Your task to perform on an android device: toggle location history Image 0: 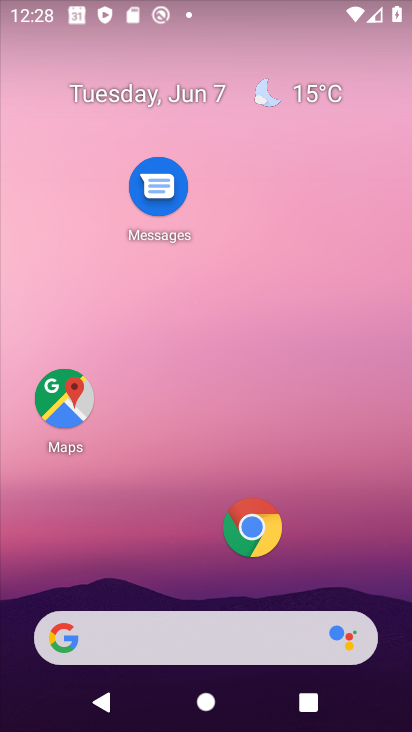
Step 0: drag from (204, 616) to (198, 210)
Your task to perform on an android device: toggle location history Image 1: 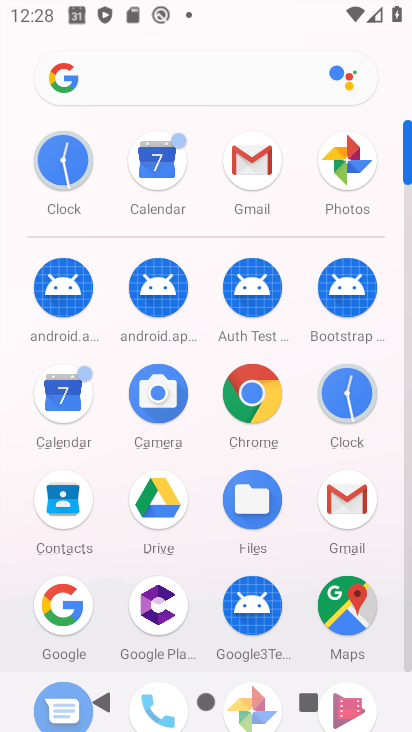
Step 1: drag from (100, 645) to (125, 290)
Your task to perform on an android device: toggle location history Image 2: 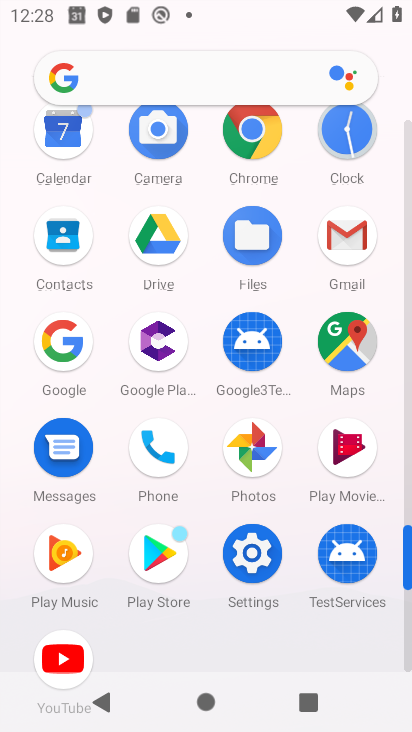
Step 2: click (240, 553)
Your task to perform on an android device: toggle location history Image 3: 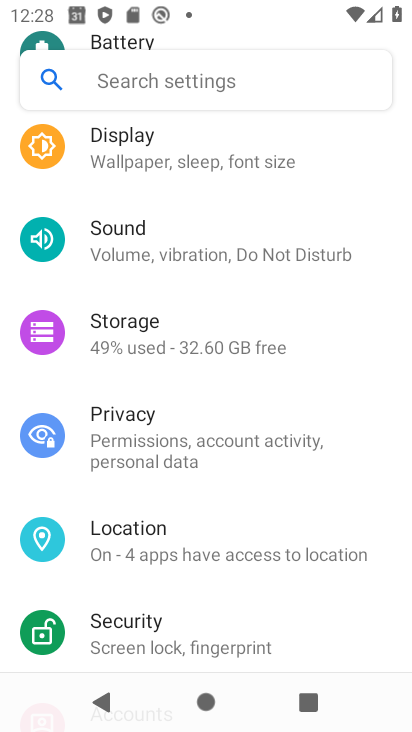
Step 3: click (213, 548)
Your task to perform on an android device: toggle location history Image 4: 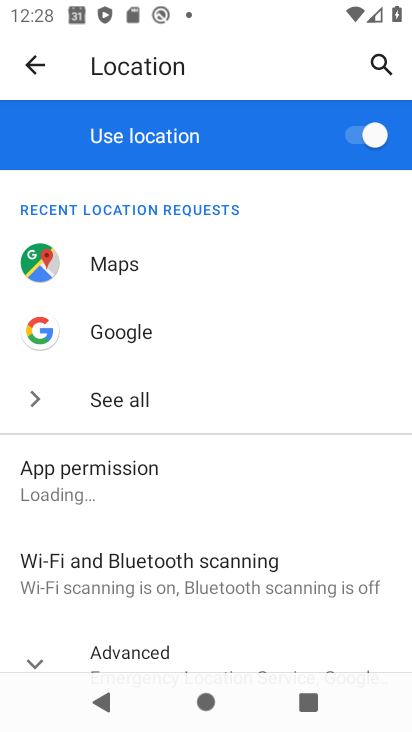
Step 4: drag from (191, 534) to (204, 209)
Your task to perform on an android device: toggle location history Image 5: 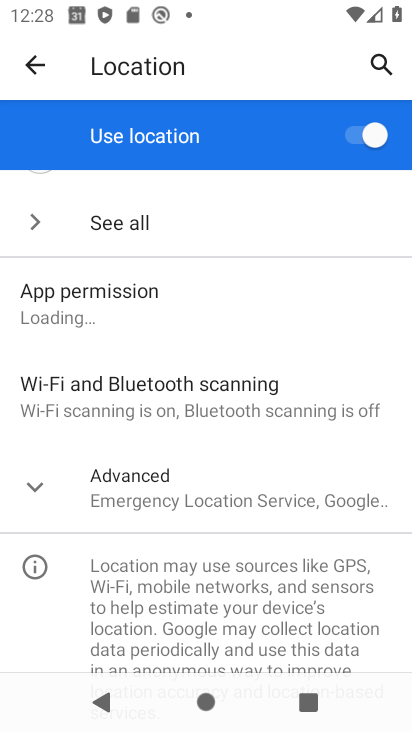
Step 5: click (199, 498)
Your task to perform on an android device: toggle location history Image 6: 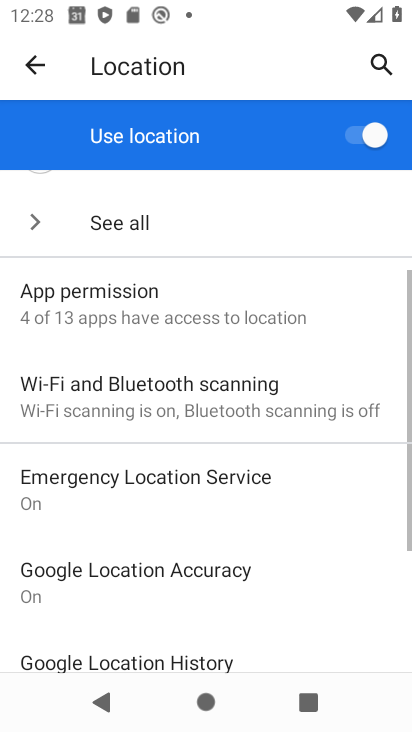
Step 6: drag from (215, 662) to (247, 304)
Your task to perform on an android device: toggle location history Image 7: 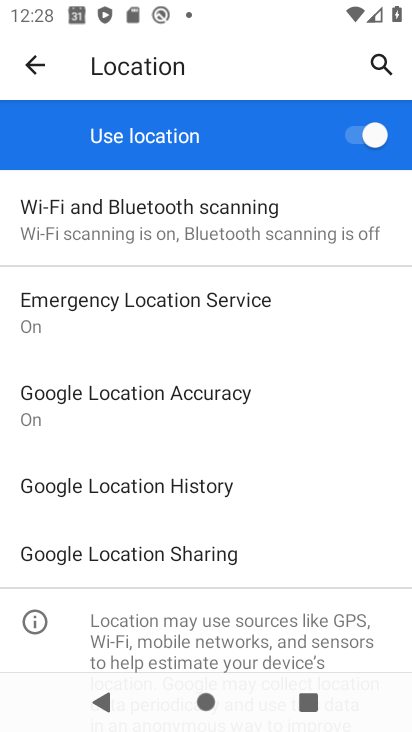
Step 7: click (165, 490)
Your task to perform on an android device: toggle location history Image 8: 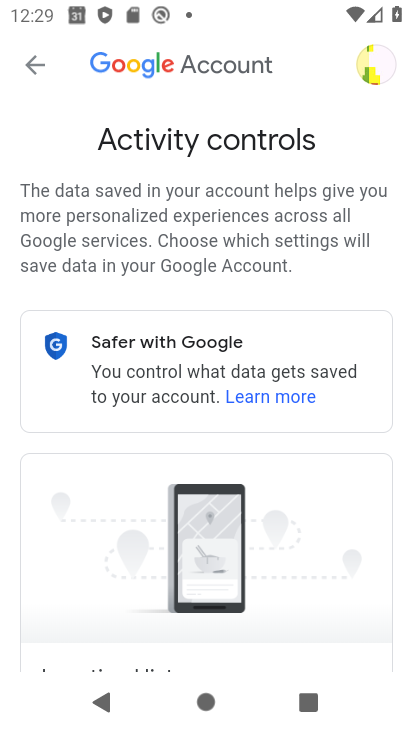
Step 8: drag from (314, 604) to (313, 253)
Your task to perform on an android device: toggle location history Image 9: 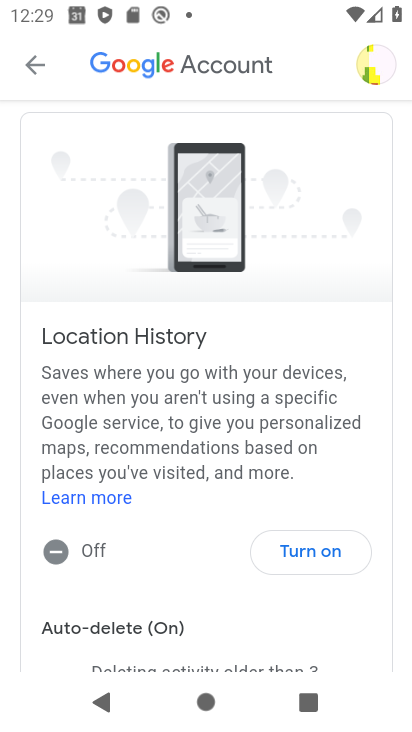
Step 9: click (321, 563)
Your task to perform on an android device: toggle location history Image 10: 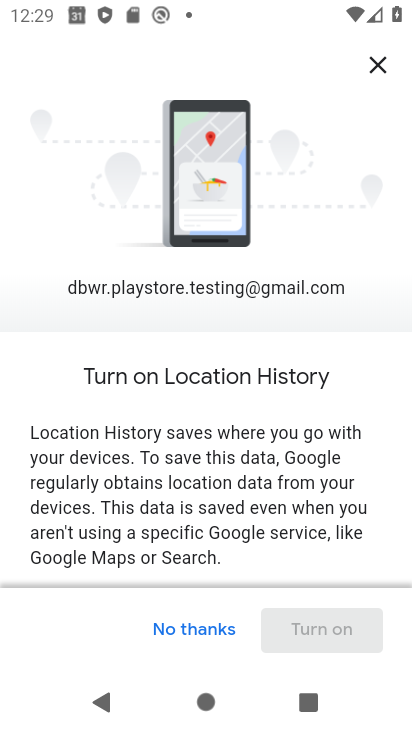
Step 10: drag from (277, 543) to (277, 144)
Your task to perform on an android device: toggle location history Image 11: 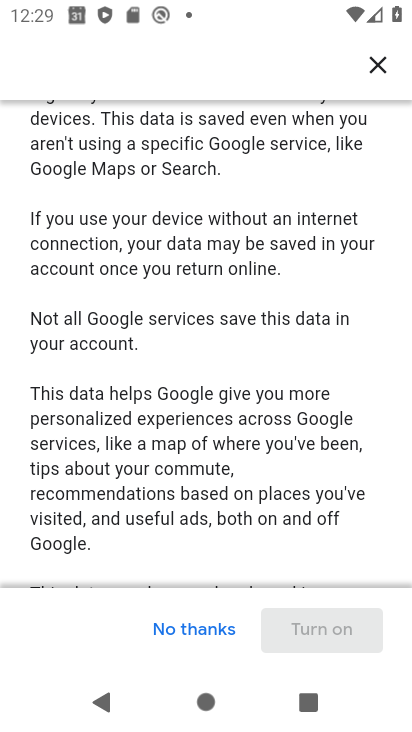
Step 11: drag from (326, 563) to (314, 205)
Your task to perform on an android device: toggle location history Image 12: 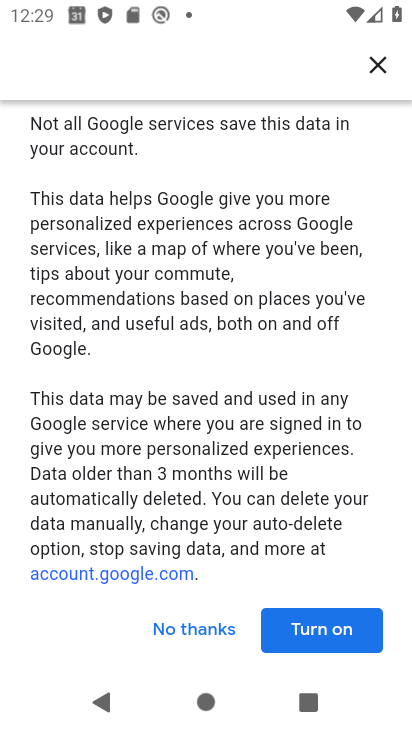
Step 12: click (331, 637)
Your task to perform on an android device: toggle location history Image 13: 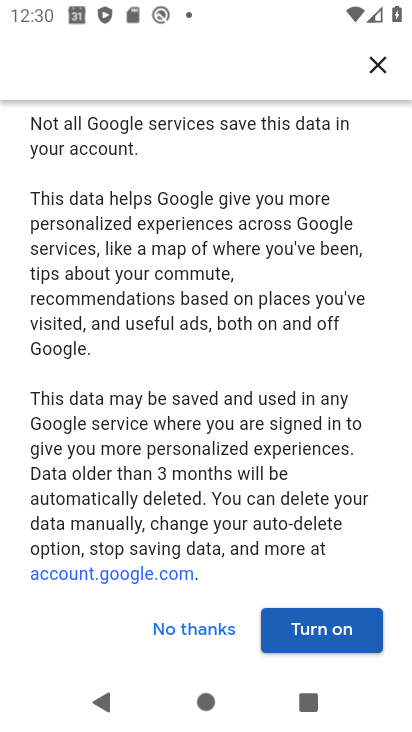
Step 13: click (342, 629)
Your task to perform on an android device: toggle location history Image 14: 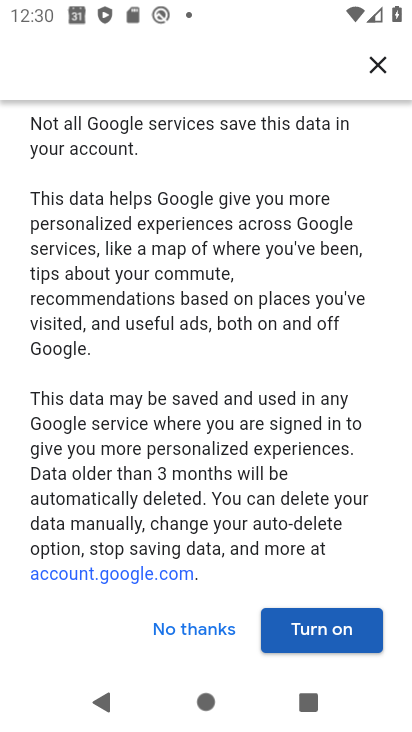
Step 14: click (342, 629)
Your task to perform on an android device: toggle location history Image 15: 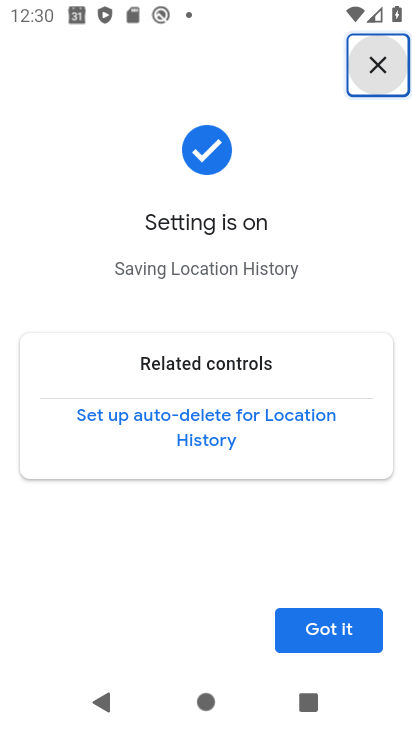
Step 15: click (342, 629)
Your task to perform on an android device: toggle location history Image 16: 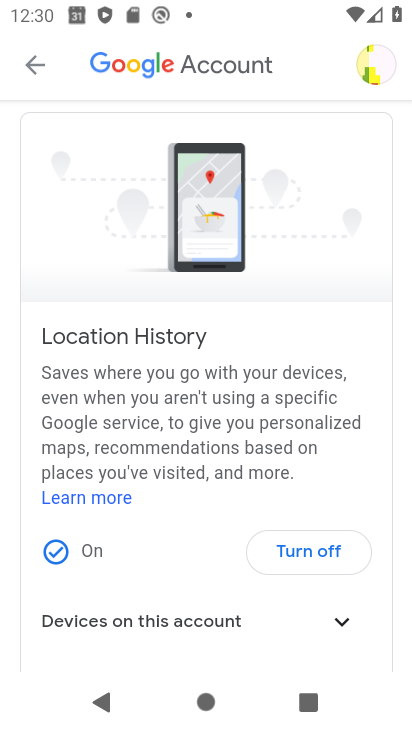
Step 16: task complete